Your task to perform on an android device: turn on wifi Image 0: 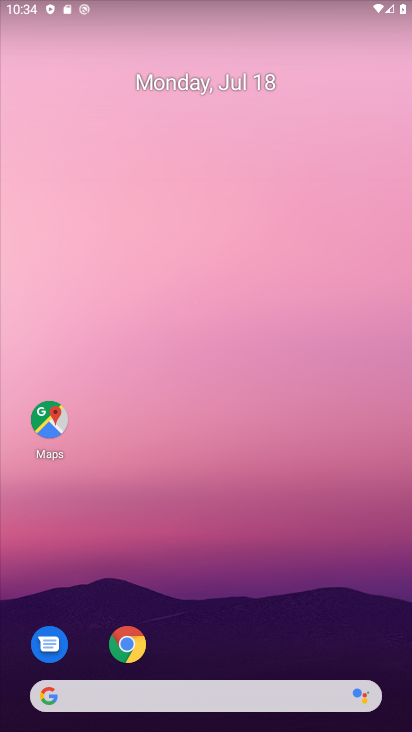
Step 0: drag from (217, 328) to (216, 88)
Your task to perform on an android device: turn on wifi Image 1: 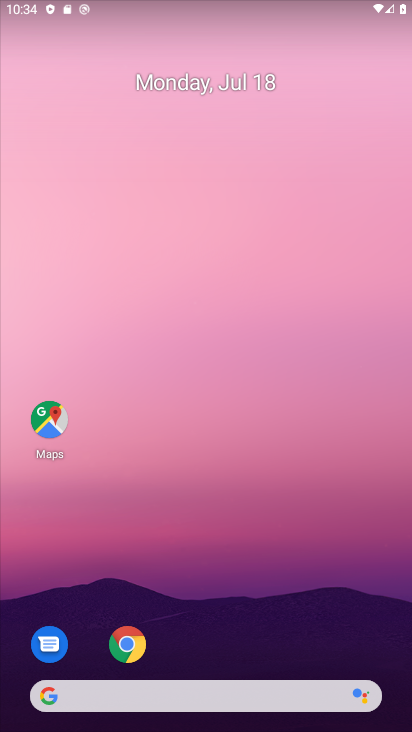
Step 1: drag from (221, 582) to (214, 77)
Your task to perform on an android device: turn on wifi Image 2: 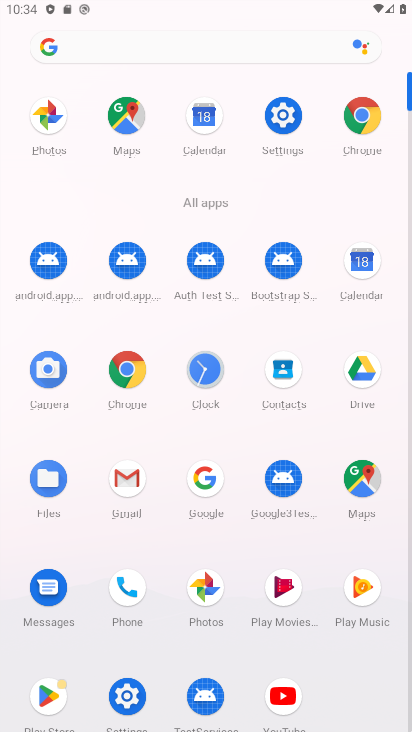
Step 2: click (288, 115)
Your task to perform on an android device: turn on wifi Image 3: 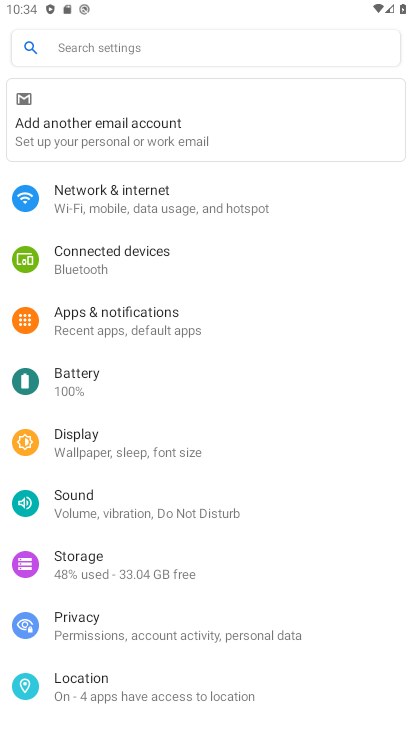
Step 3: click (133, 182)
Your task to perform on an android device: turn on wifi Image 4: 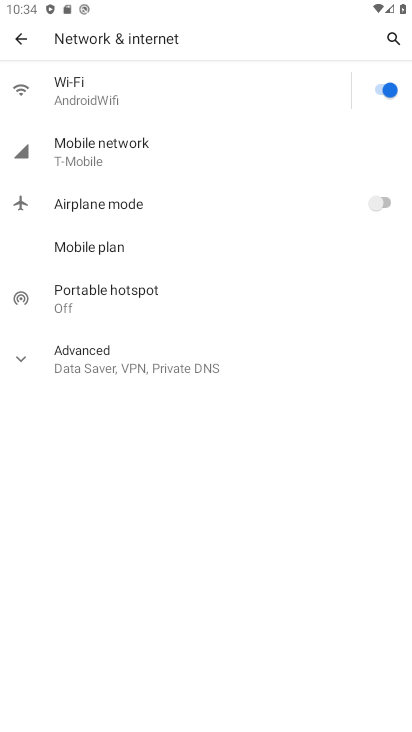
Step 4: click (97, 83)
Your task to perform on an android device: turn on wifi Image 5: 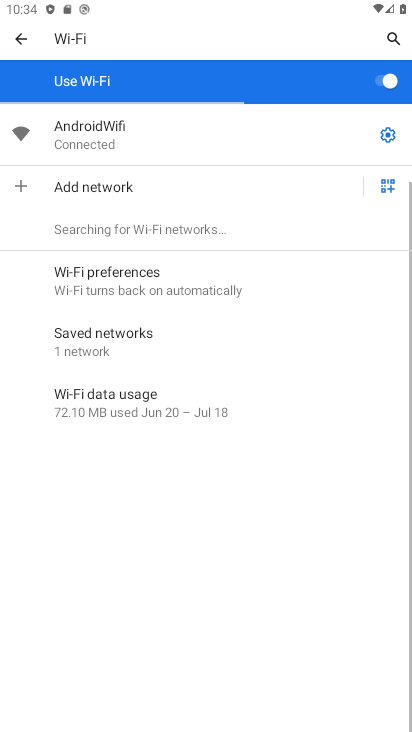
Step 5: task complete